Your task to perform on an android device: delete a single message in the gmail app Image 0: 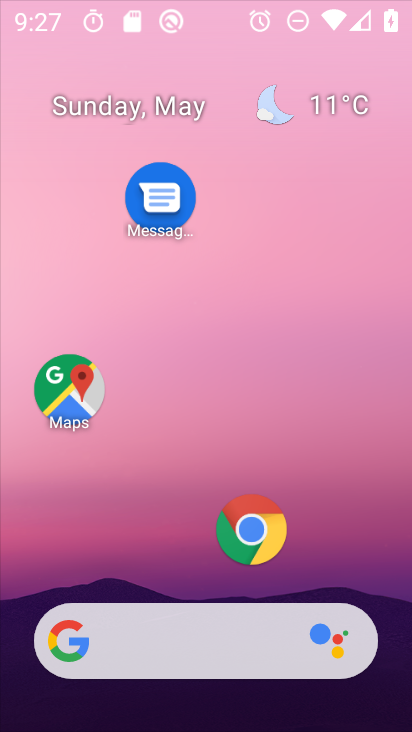
Step 0: press home button
Your task to perform on an android device: delete a single message in the gmail app Image 1: 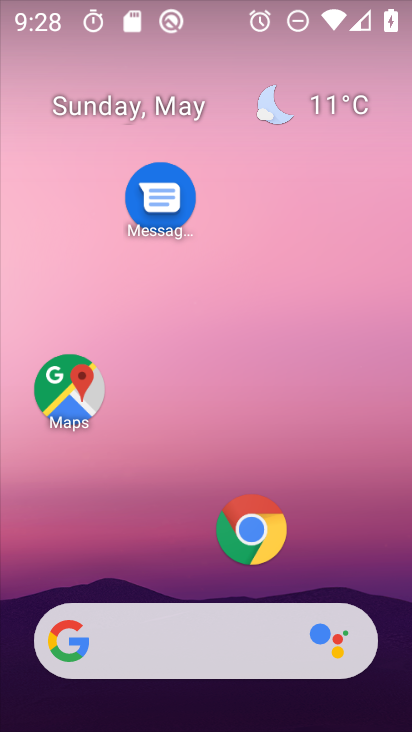
Step 1: drag from (179, 585) to (231, 73)
Your task to perform on an android device: delete a single message in the gmail app Image 2: 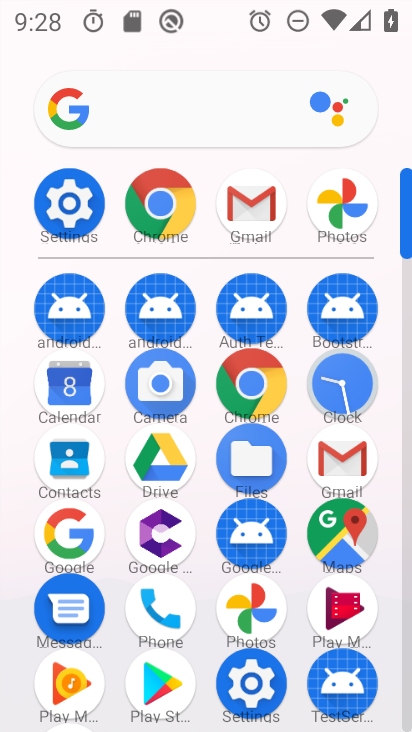
Step 2: click (345, 450)
Your task to perform on an android device: delete a single message in the gmail app Image 3: 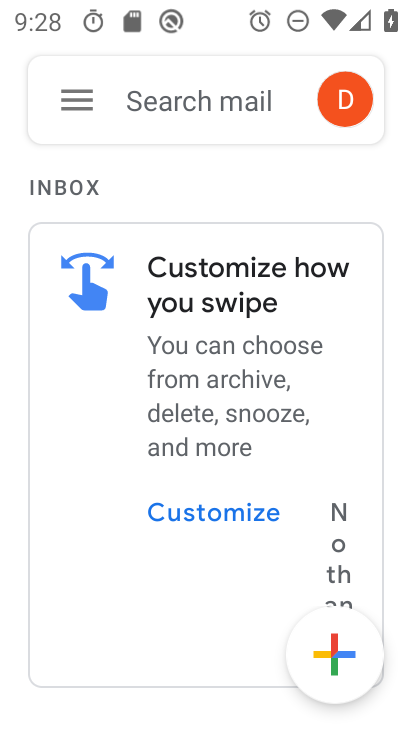
Step 3: click (74, 99)
Your task to perform on an android device: delete a single message in the gmail app Image 4: 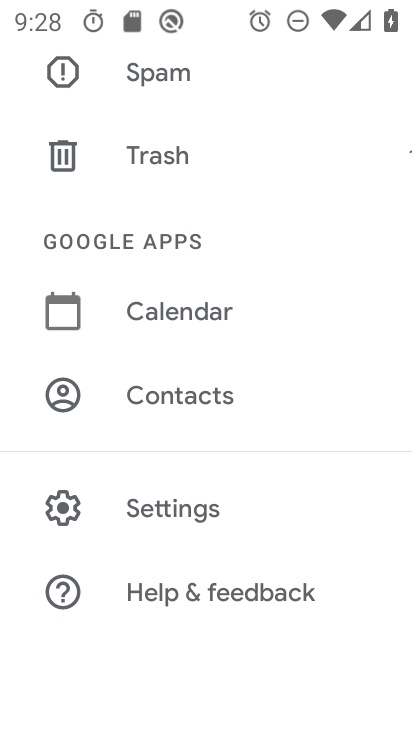
Step 4: drag from (112, 86) to (136, 396)
Your task to perform on an android device: delete a single message in the gmail app Image 5: 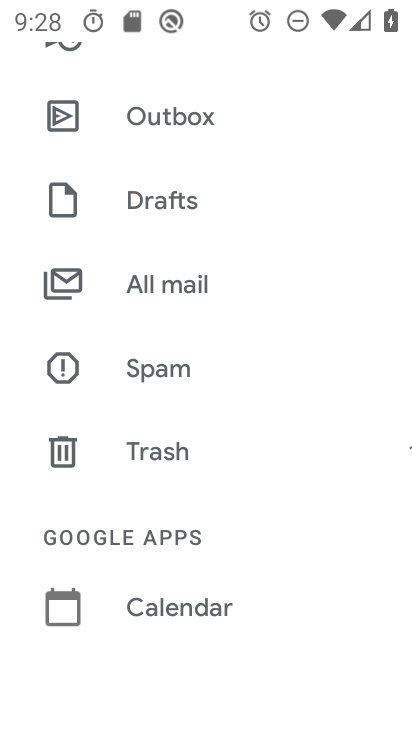
Step 5: click (111, 280)
Your task to perform on an android device: delete a single message in the gmail app Image 6: 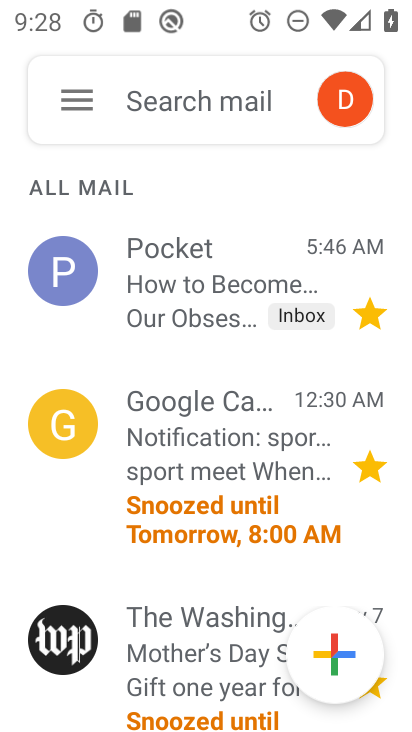
Step 6: click (71, 288)
Your task to perform on an android device: delete a single message in the gmail app Image 7: 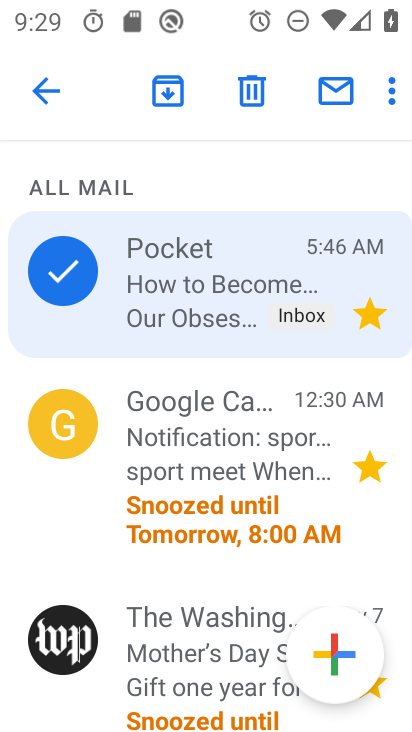
Step 7: click (390, 99)
Your task to perform on an android device: delete a single message in the gmail app Image 8: 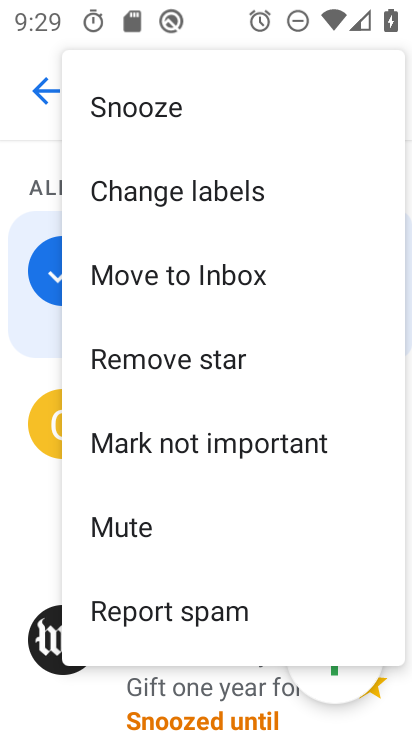
Step 8: click (26, 142)
Your task to perform on an android device: delete a single message in the gmail app Image 9: 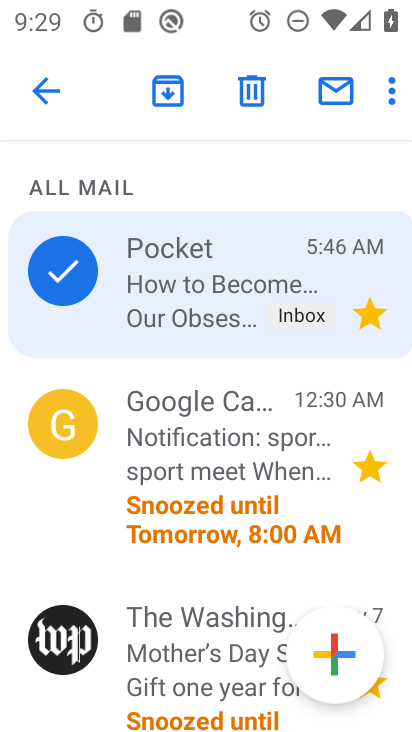
Step 9: click (248, 83)
Your task to perform on an android device: delete a single message in the gmail app Image 10: 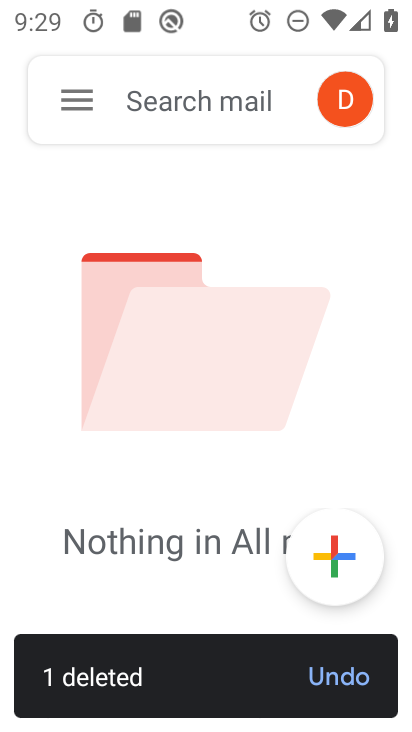
Step 10: task complete